Your task to perform on an android device: Open Google Chrome and open the bookmarks view Image 0: 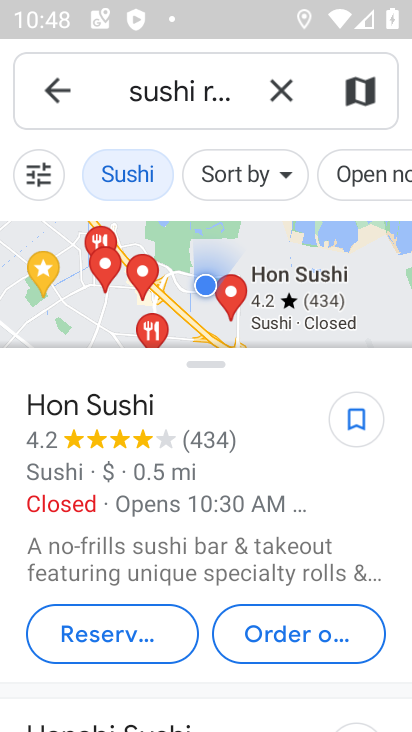
Step 0: press home button
Your task to perform on an android device: Open Google Chrome and open the bookmarks view Image 1: 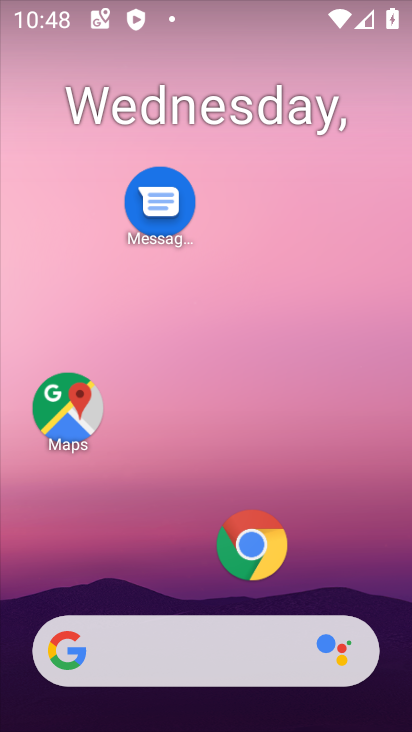
Step 1: click (251, 548)
Your task to perform on an android device: Open Google Chrome and open the bookmarks view Image 2: 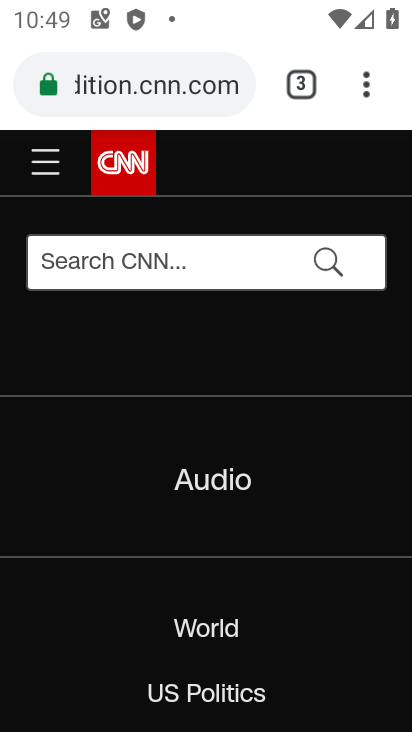
Step 2: task complete